Your task to perform on an android device: manage bookmarks in the chrome app Image 0: 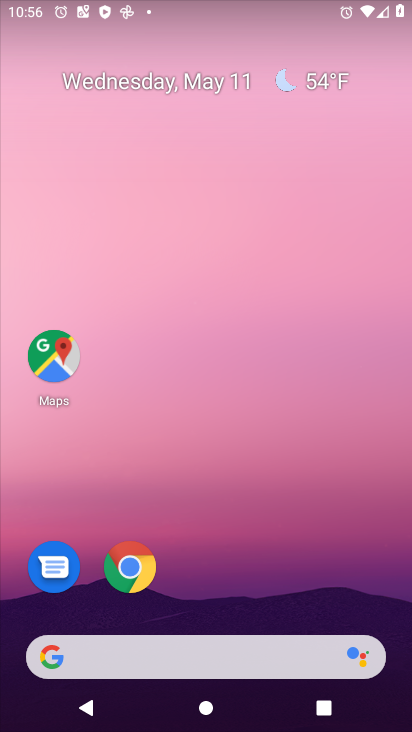
Step 0: click (139, 568)
Your task to perform on an android device: manage bookmarks in the chrome app Image 1: 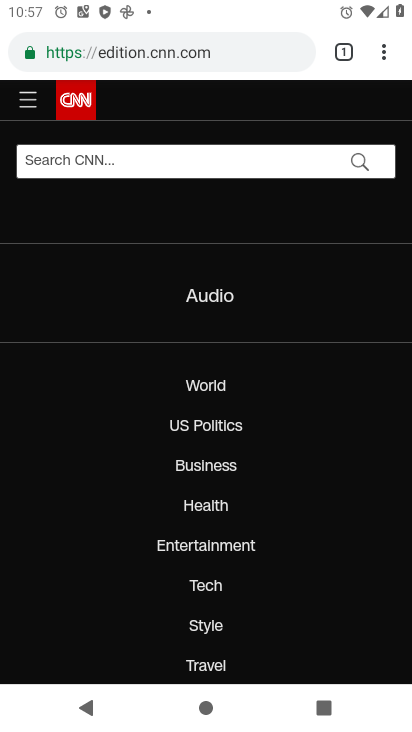
Step 1: click (378, 52)
Your task to perform on an android device: manage bookmarks in the chrome app Image 2: 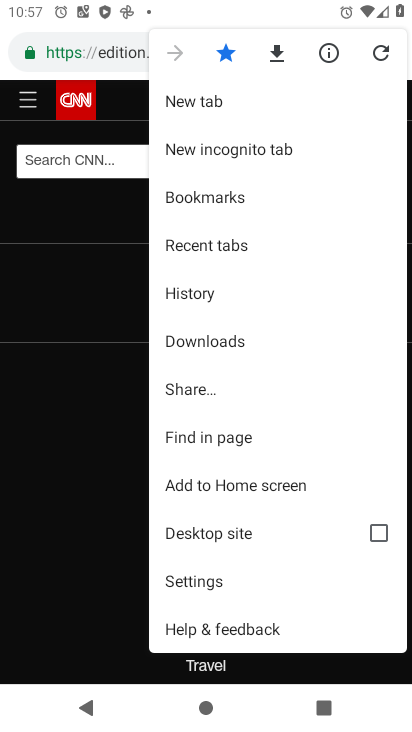
Step 2: click (228, 197)
Your task to perform on an android device: manage bookmarks in the chrome app Image 3: 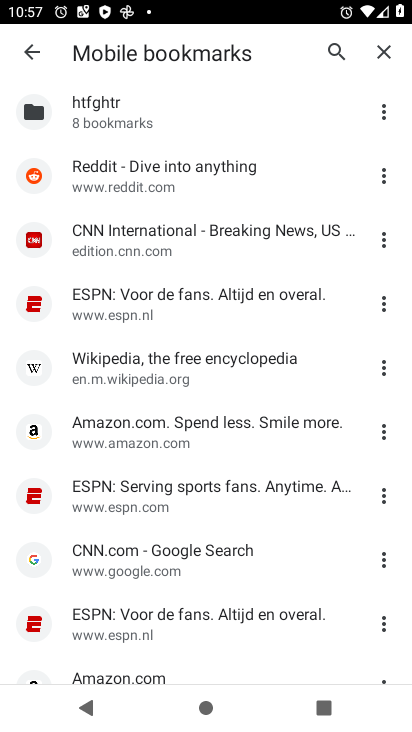
Step 3: click (380, 173)
Your task to perform on an android device: manage bookmarks in the chrome app Image 4: 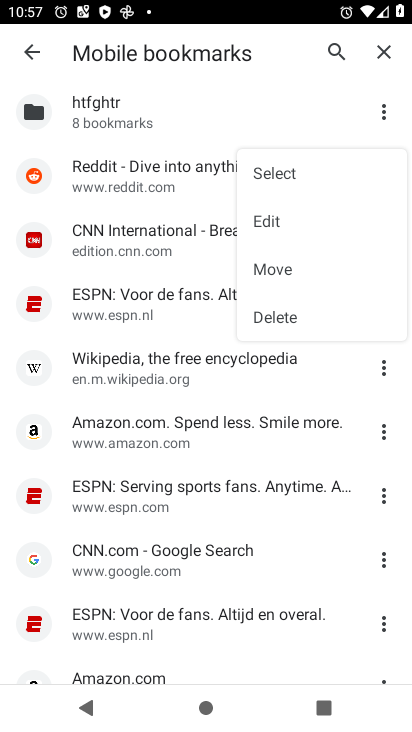
Step 4: click (289, 175)
Your task to perform on an android device: manage bookmarks in the chrome app Image 5: 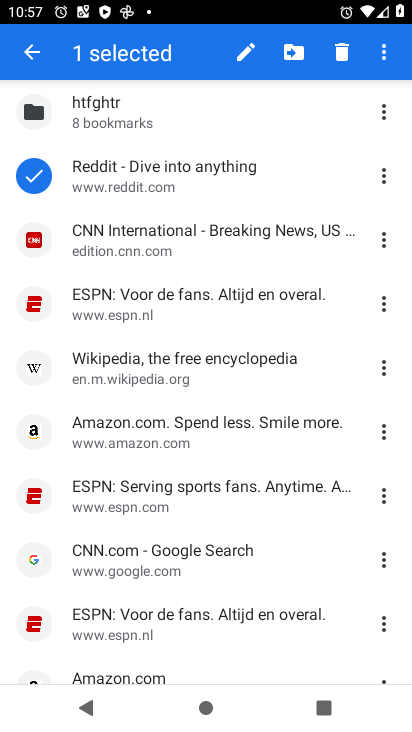
Step 5: click (199, 246)
Your task to perform on an android device: manage bookmarks in the chrome app Image 6: 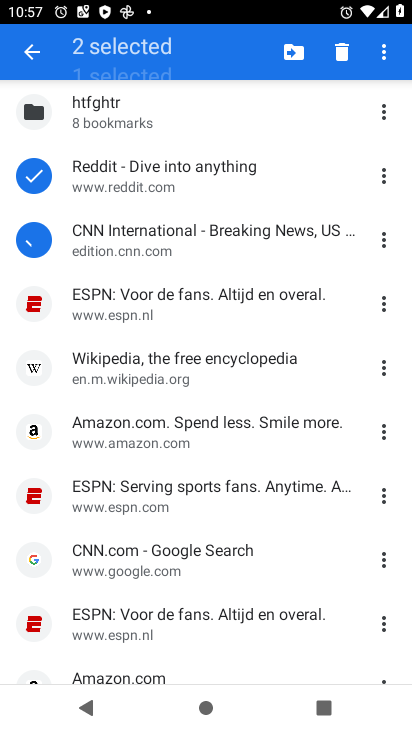
Step 6: click (180, 303)
Your task to perform on an android device: manage bookmarks in the chrome app Image 7: 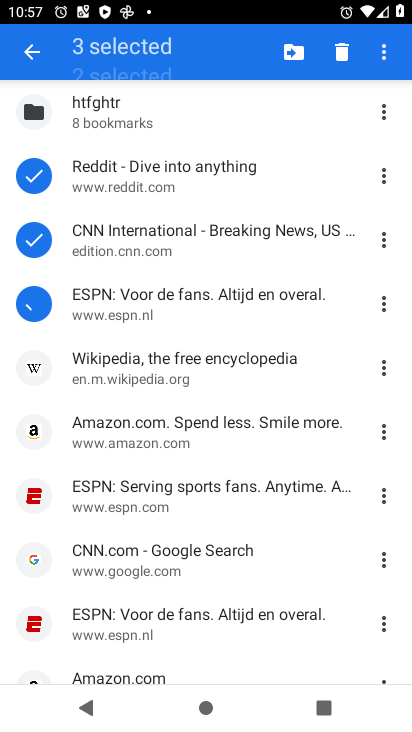
Step 7: click (151, 404)
Your task to perform on an android device: manage bookmarks in the chrome app Image 8: 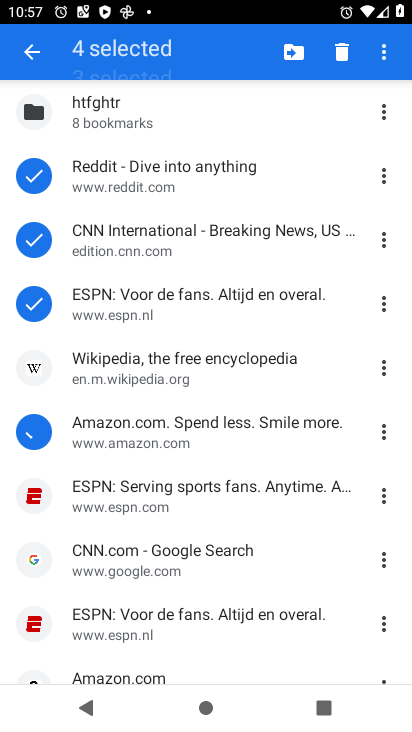
Step 8: click (122, 460)
Your task to perform on an android device: manage bookmarks in the chrome app Image 9: 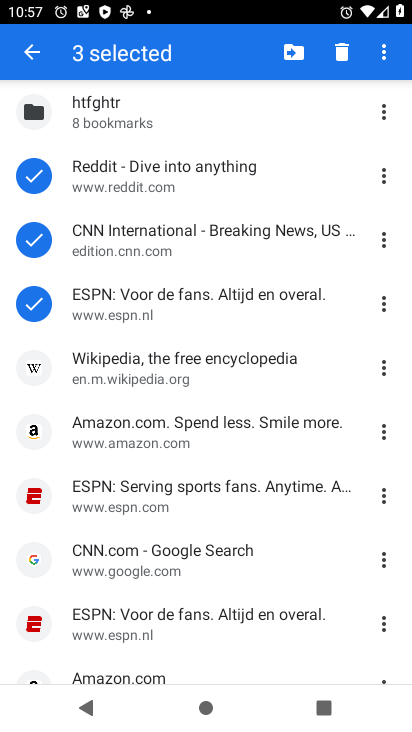
Step 9: click (126, 387)
Your task to perform on an android device: manage bookmarks in the chrome app Image 10: 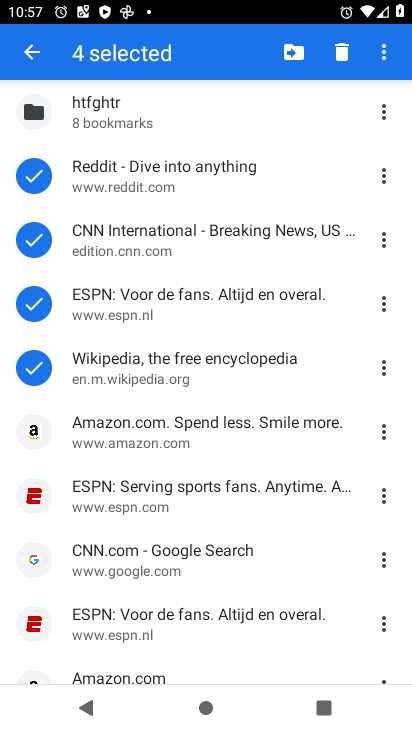
Step 10: click (121, 485)
Your task to perform on an android device: manage bookmarks in the chrome app Image 11: 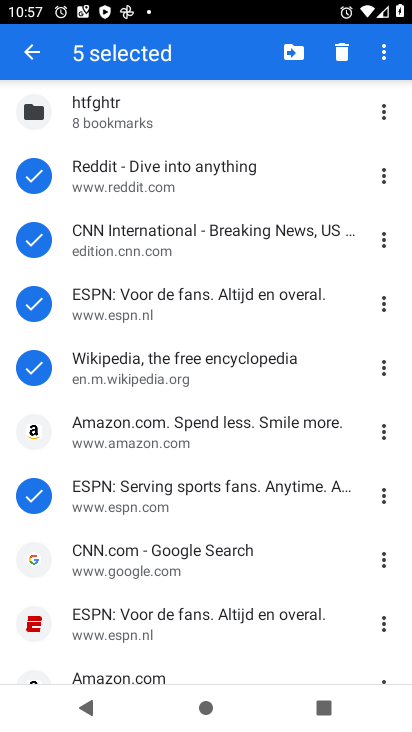
Step 11: click (118, 424)
Your task to perform on an android device: manage bookmarks in the chrome app Image 12: 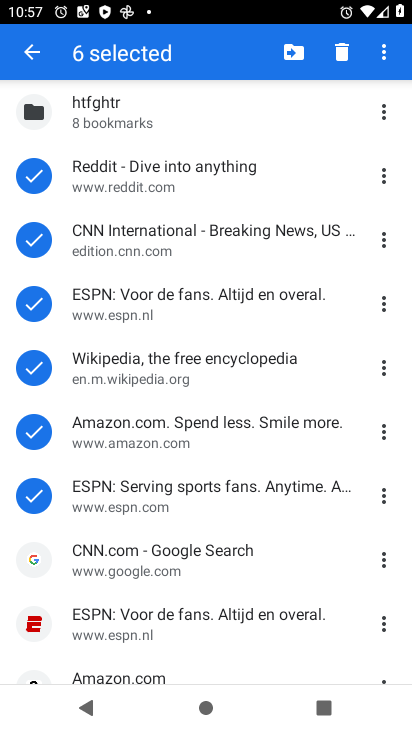
Step 12: click (133, 574)
Your task to perform on an android device: manage bookmarks in the chrome app Image 13: 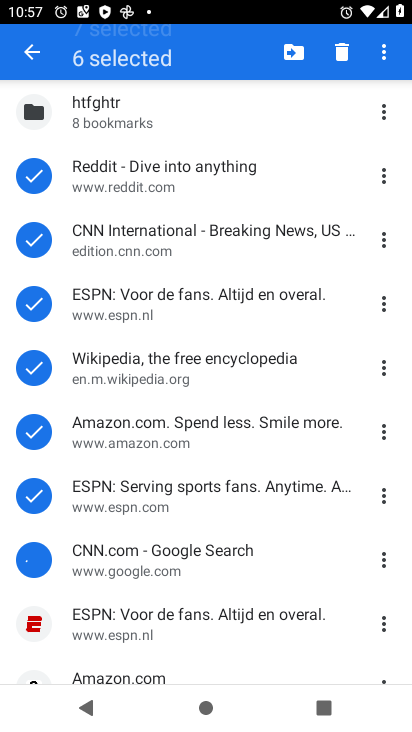
Step 13: click (126, 619)
Your task to perform on an android device: manage bookmarks in the chrome app Image 14: 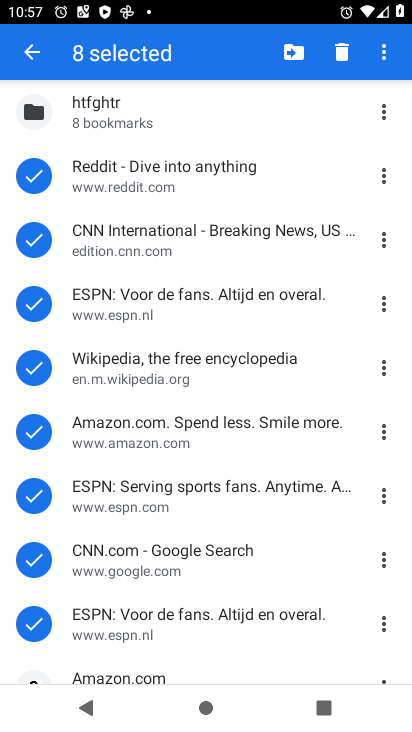
Step 14: drag from (240, 629) to (286, 182)
Your task to perform on an android device: manage bookmarks in the chrome app Image 15: 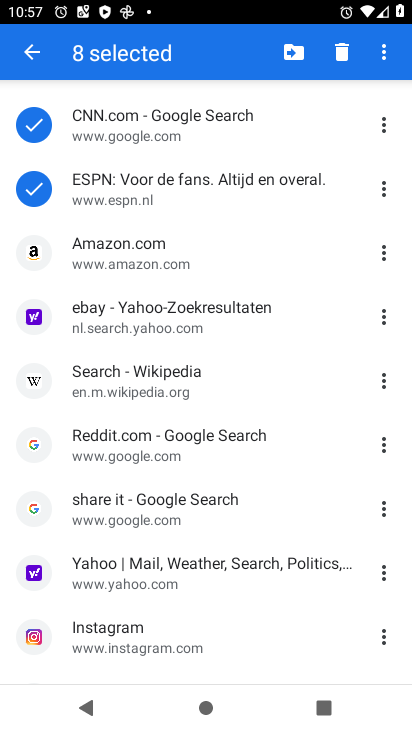
Step 15: click (131, 374)
Your task to perform on an android device: manage bookmarks in the chrome app Image 16: 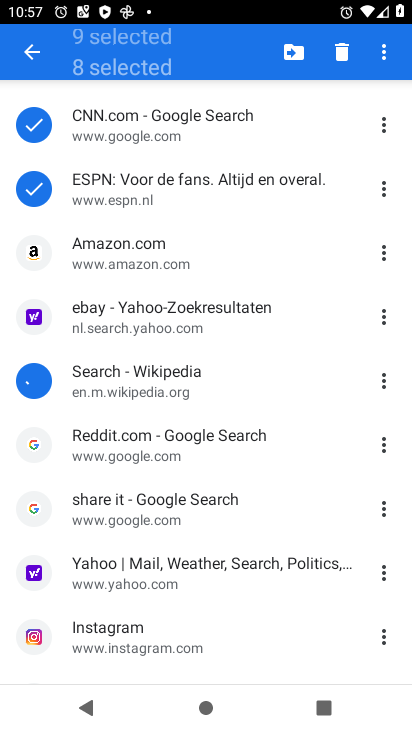
Step 16: click (107, 245)
Your task to perform on an android device: manage bookmarks in the chrome app Image 17: 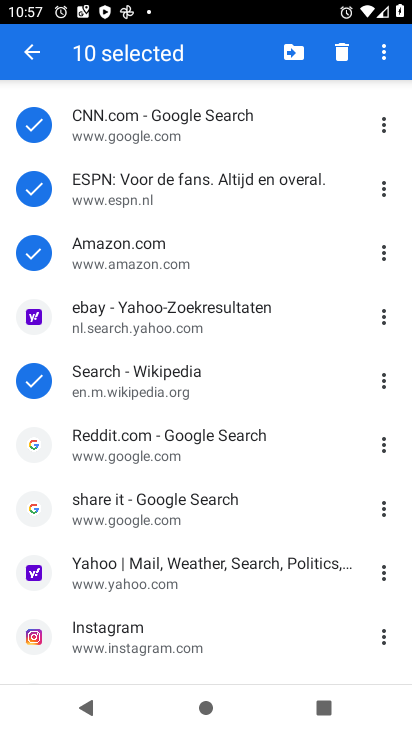
Step 17: click (88, 449)
Your task to perform on an android device: manage bookmarks in the chrome app Image 18: 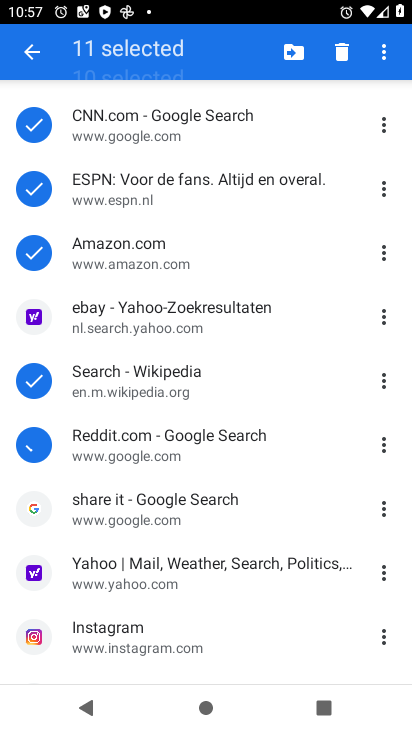
Step 18: click (114, 338)
Your task to perform on an android device: manage bookmarks in the chrome app Image 19: 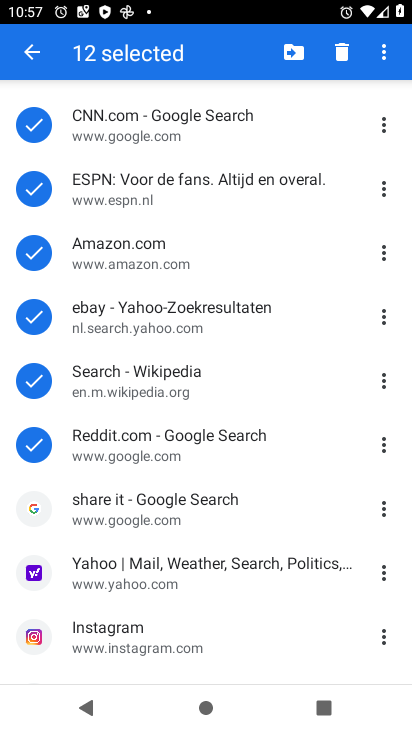
Step 19: click (134, 503)
Your task to perform on an android device: manage bookmarks in the chrome app Image 20: 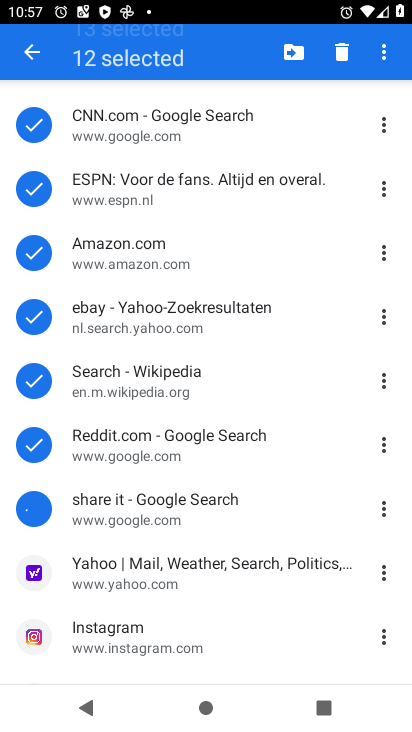
Step 20: click (111, 610)
Your task to perform on an android device: manage bookmarks in the chrome app Image 21: 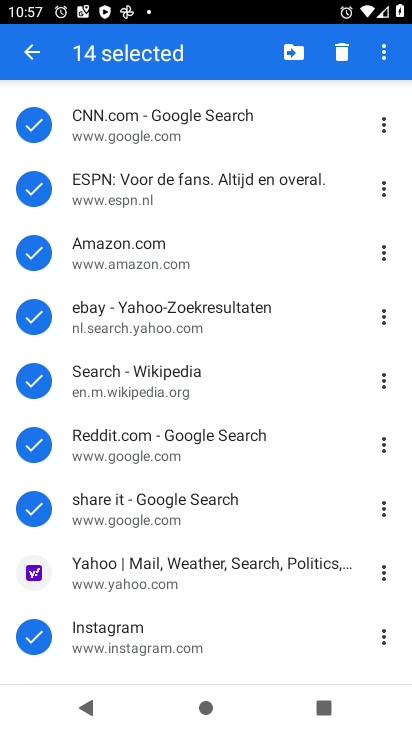
Step 21: click (111, 652)
Your task to perform on an android device: manage bookmarks in the chrome app Image 22: 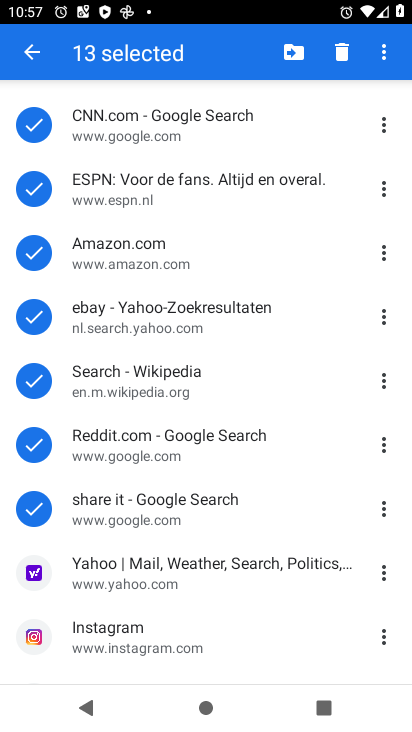
Step 22: click (115, 577)
Your task to perform on an android device: manage bookmarks in the chrome app Image 23: 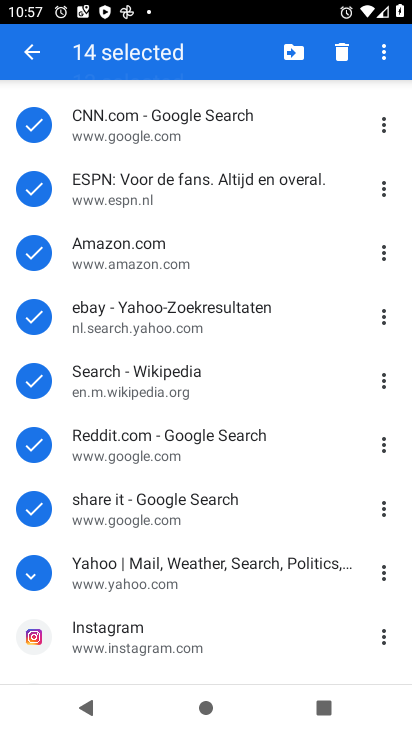
Step 23: click (107, 658)
Your task to perform on an android device: manage bookmarks in the chrome app Image 24: 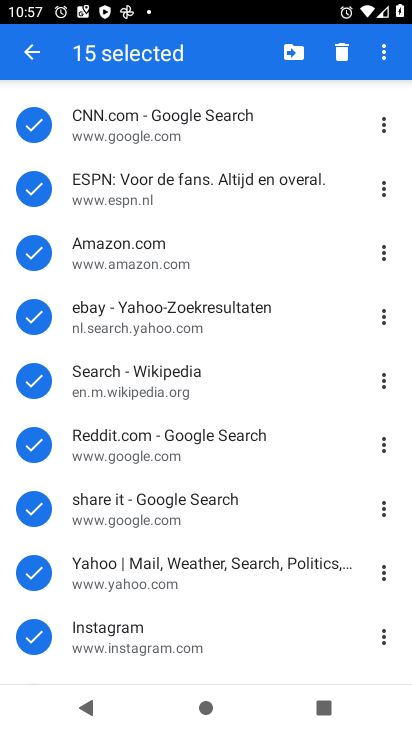
Step 24: click (293, 53)
Your task to perform on an android device: manage bookmarks in the chrome app Image 25: 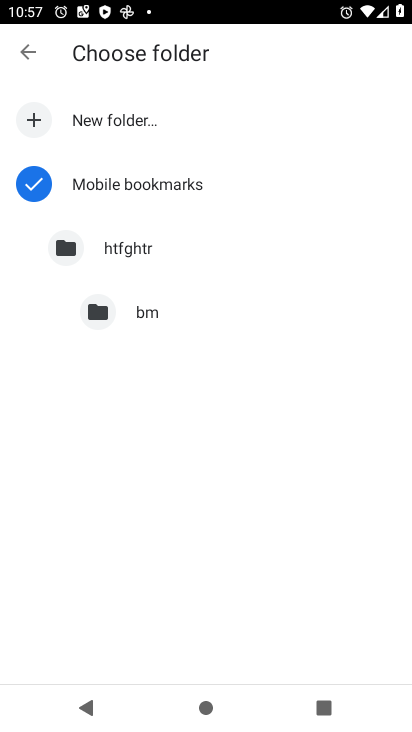
Step 25: click (128, 253)
Your task to perform on an android device: manage bookmarks in the chrome app Image 26: 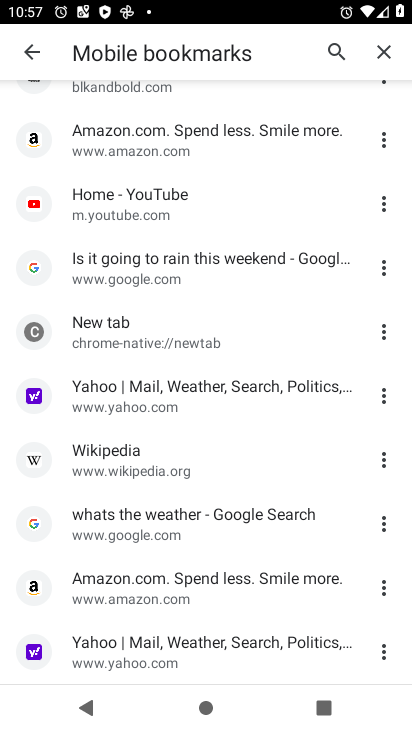
Step 26: task complete